Your task to perform on an android device: open a new tab in the chrome app Image 0: 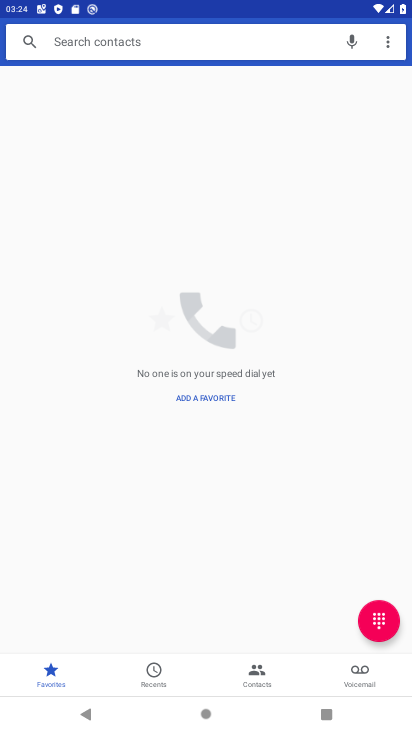
Step 0: press home button
Your task to perform on an android device: open a new tab in the chrome app Image 1: 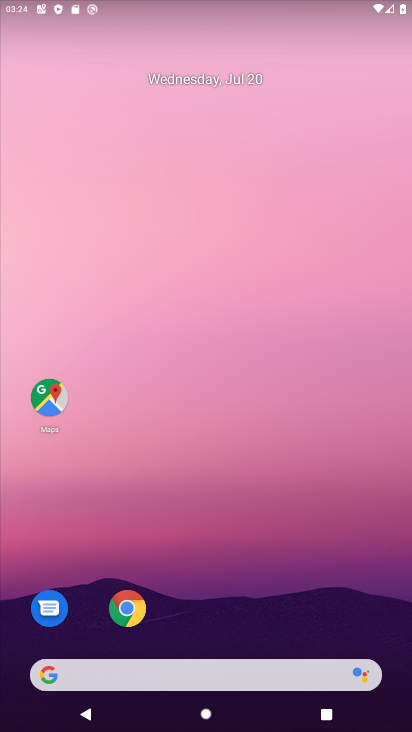
Step 1: click (129, 606)
Your task to perform on an android device: open a new tab in the chrome app Image 2: 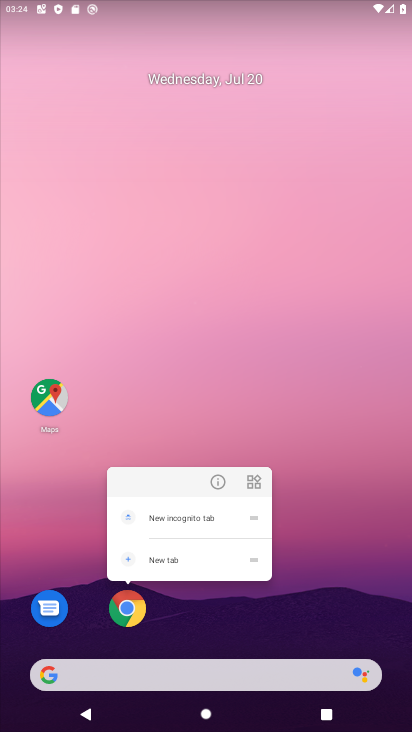
Step 2: click (129, 606)
Your task to perform on an android device: open a new tab in the chrome app Image 3: 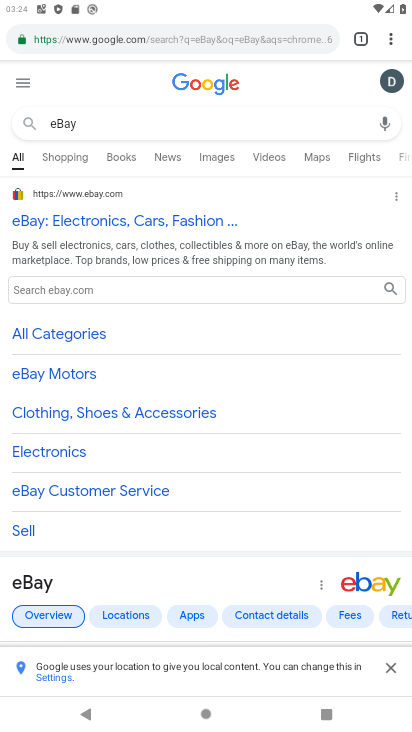
Step 3: click (304, 40)
Your task to perform on an android device: open a new tab in the chrome app Image 4: 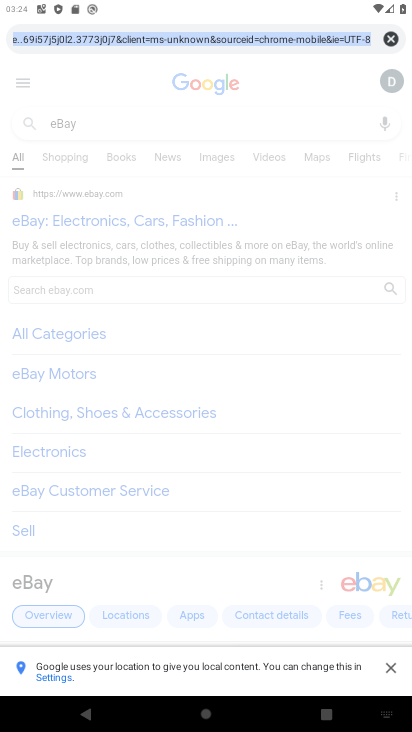
Step 4: click (394, 43)
Your task to perform on an android device: open a new tab in the chrome app Image 5: 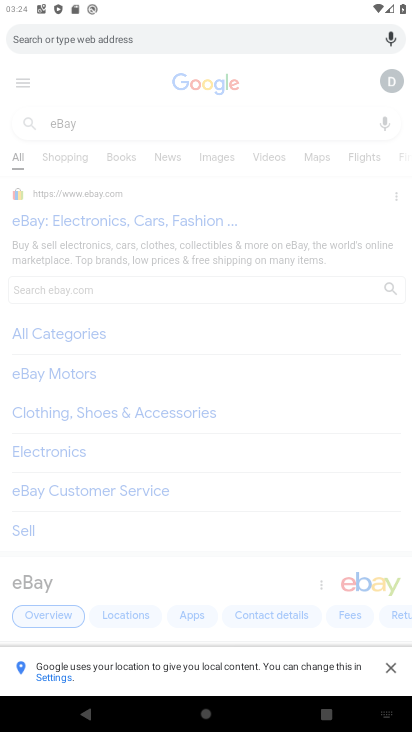
Step 5: press back button
Your task to perform on an android device: open a new tab in the chrome app Image 6: 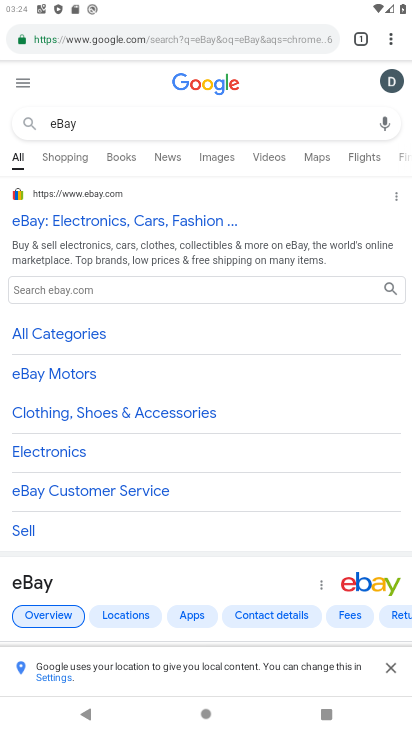
Step 6: click (386, 41)
Your task to perform on an android device: open a new tab in the chrome app Image 7: 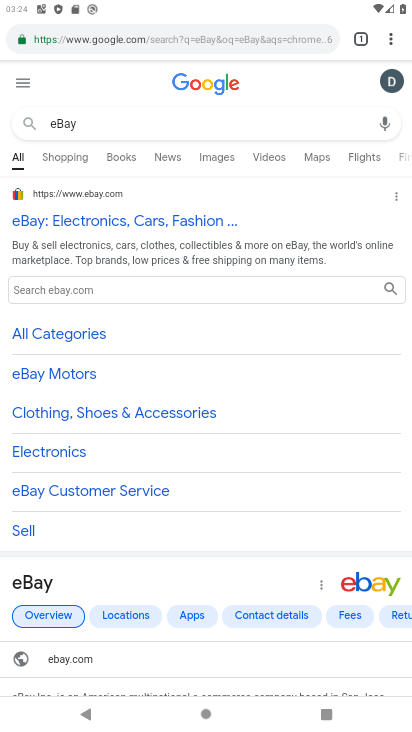
Step 7: click (389, 40)
Your task to perform on an android device: open a new tab in the chrome app Image 8: 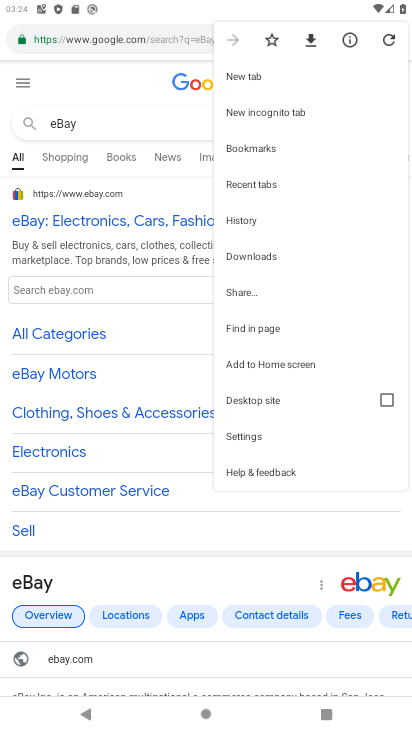
Step 8: click (239, 77)
Your task to perform on an android device: open a new tab in the chrome app Image 9: 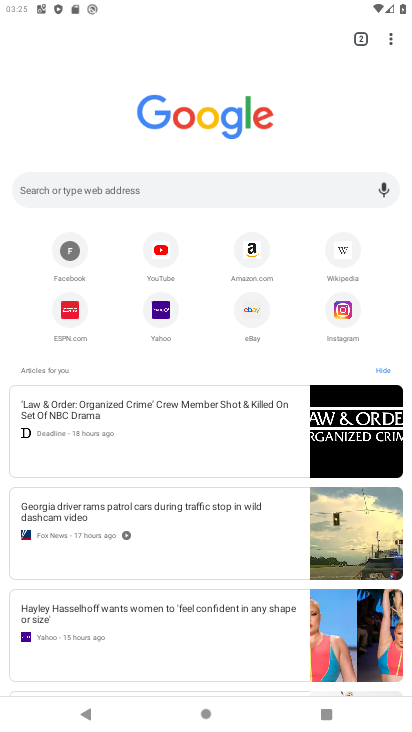
Step 9: task complete